Your task to perform on an android device: delete the emails in spam in the gmail app Image 0: 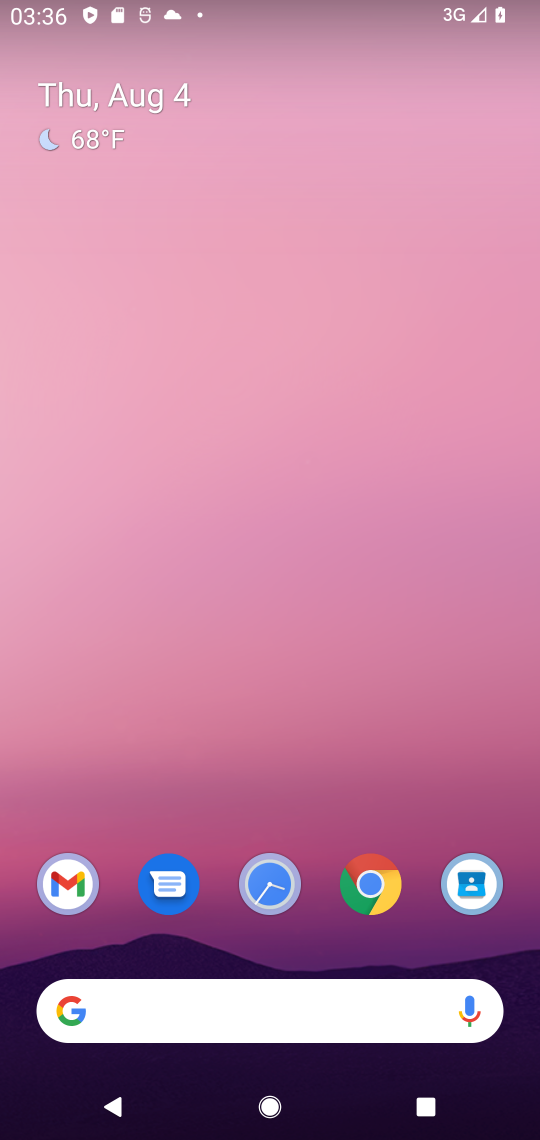
Step 0: press home button
Your task to perform on an android device: delete the emails in spam in the gmail app Image 1: 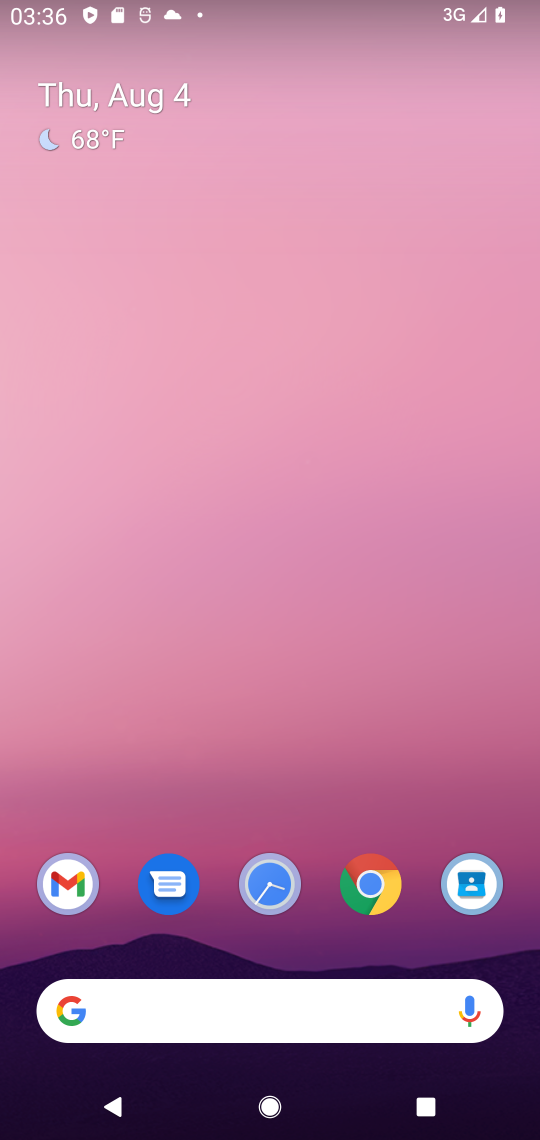
Step 1: drag from (326, 901) to (352, 332)
Your task to perform on an android device: delete the emails in spam in the gmail app Image 2: 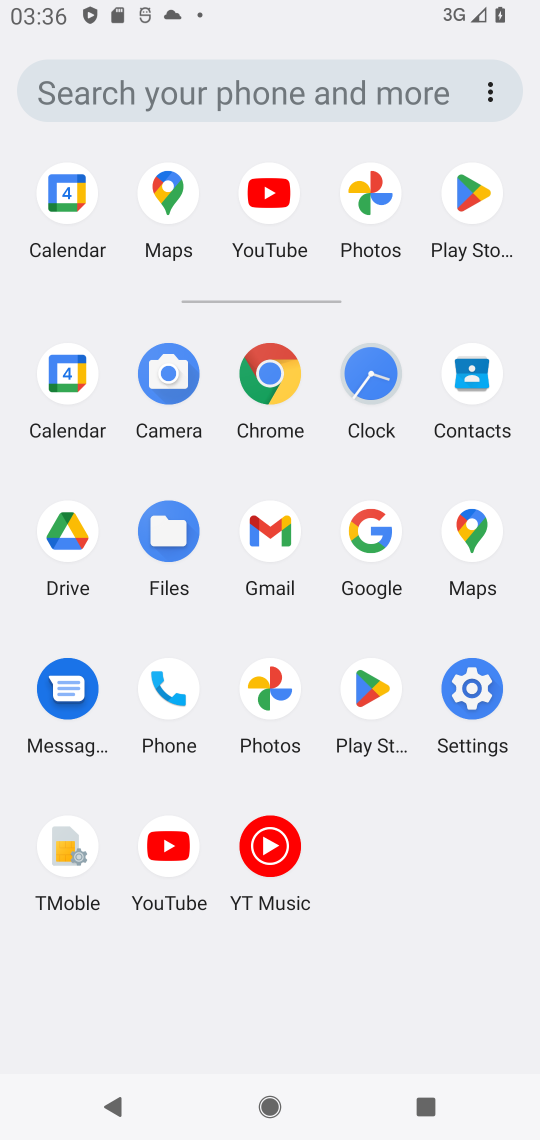
Step 2: click (275, 537)
Your task to perform on an android device: delete the emails in spam in the gmail app Image 3: 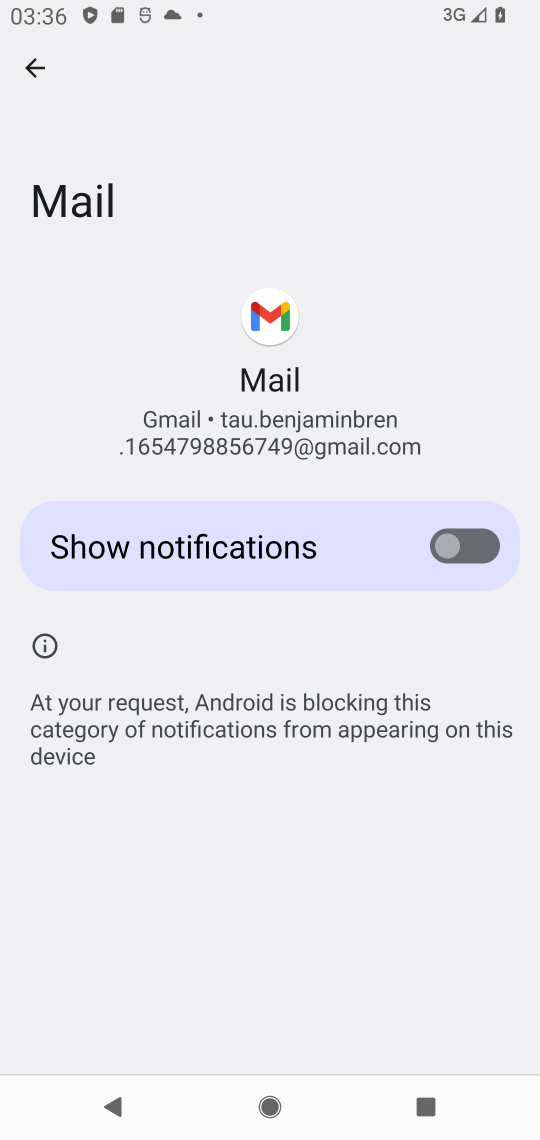
Step 3: press back button
Your task to perform on an android device: delete the emails in spam in the gmail app Image 4: 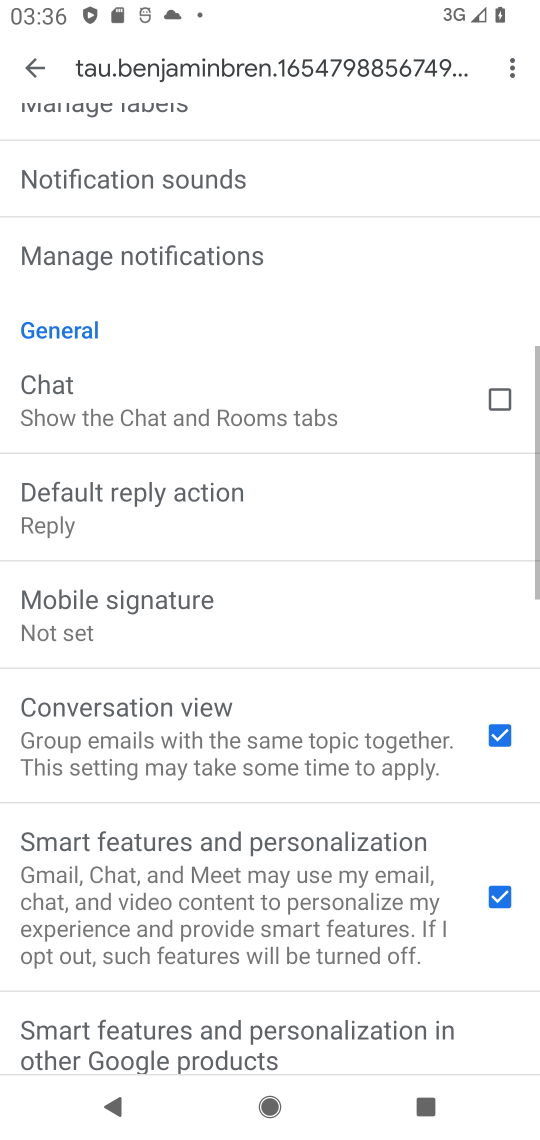
Step 4: press back button
Your task to perform on an android device: delete the emails in spam in the gmail app Image 5: 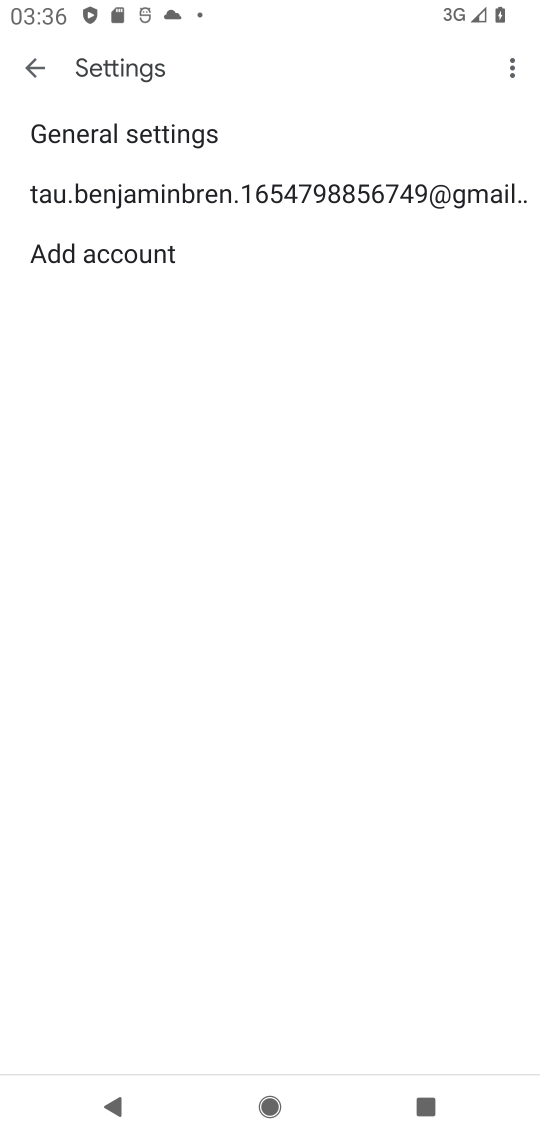
Step 5: press back button
Your task to perform on an android device: delete the emails in spam in the gmail app Image 6: 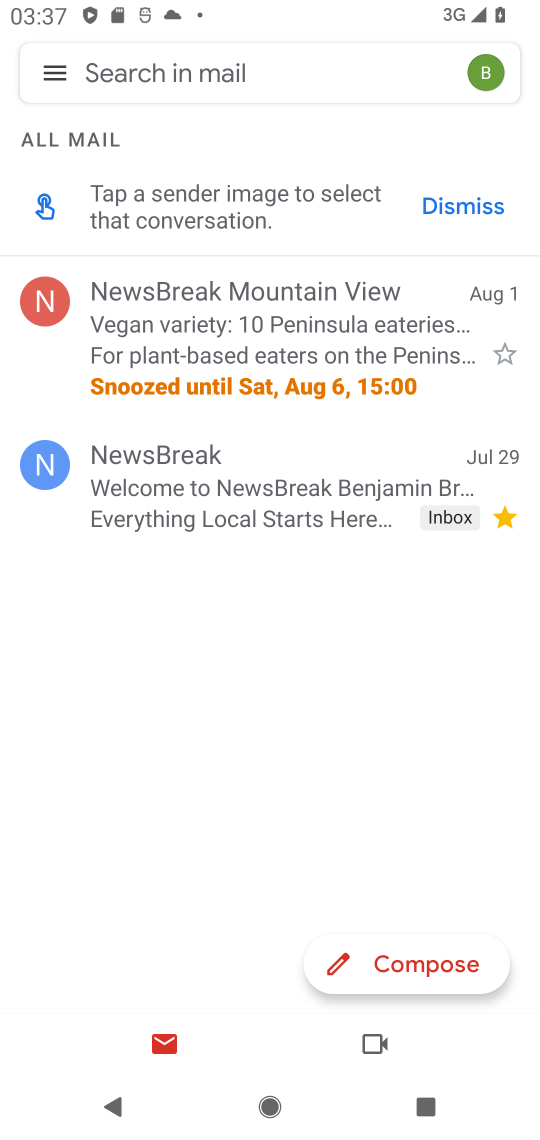
Step 6: click (53, 70)
Your task to perform on an android device: delete the emails in spam in the gmail app Image 7: 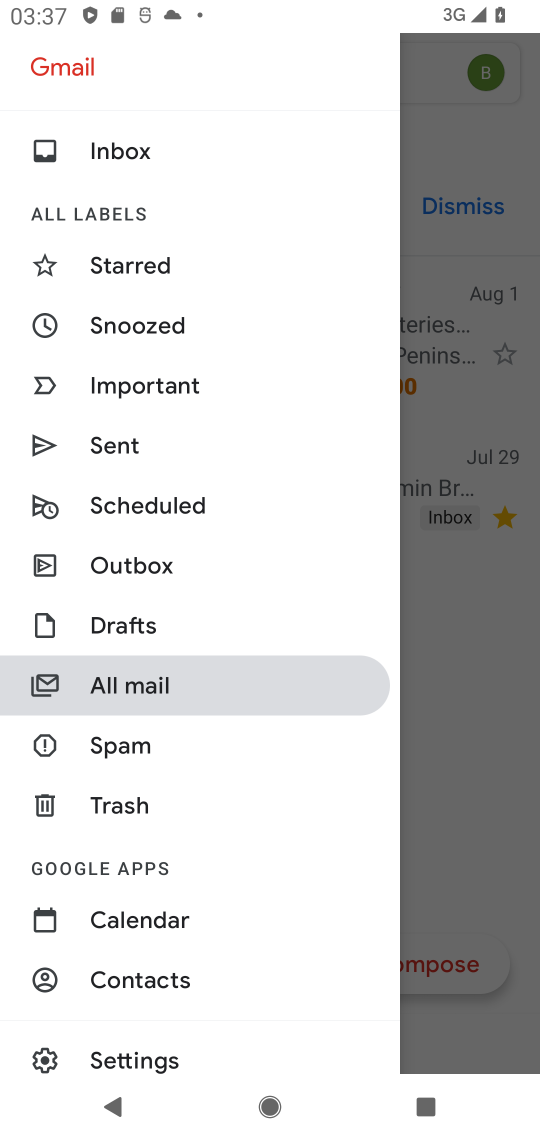
Step 7: click (149, 747)
Your task to perform on an android device: delete the emails in spam in the gmail app Image 8: 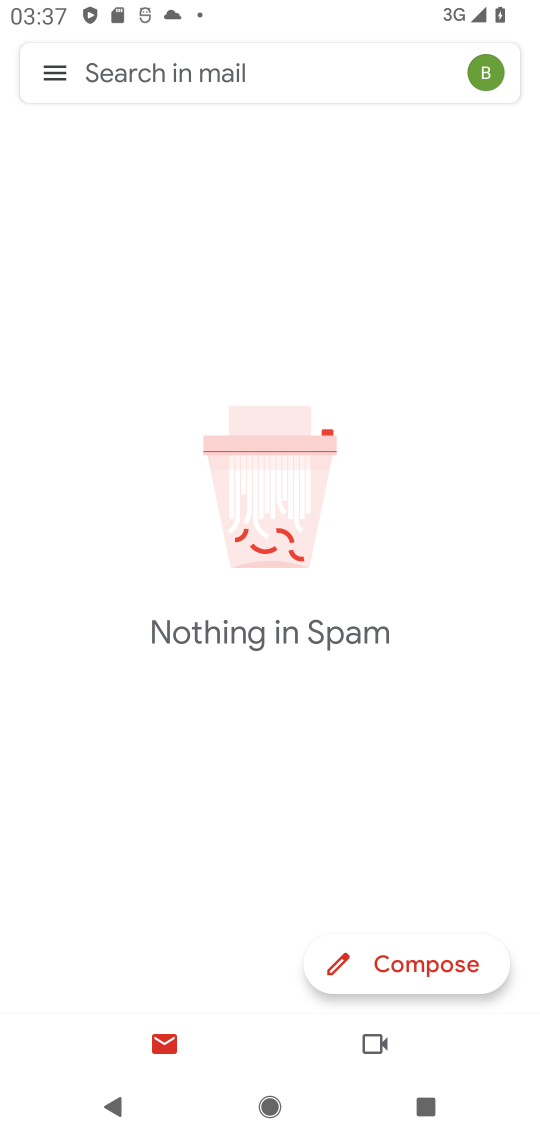
Step 8: task complete